Your task to perform on an android device: Show me productivity apps on the Play Store Image 0: 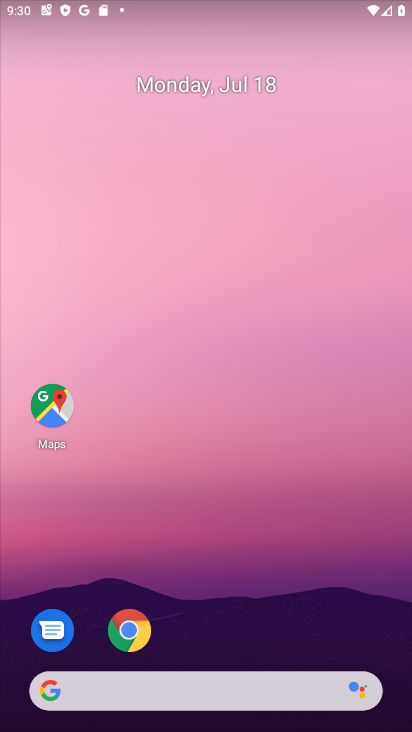
Step 0: drag from (370, 643) to (204, 18)
Your task to perform on an android device: Show me productivity apps on the Play Store Image 1: 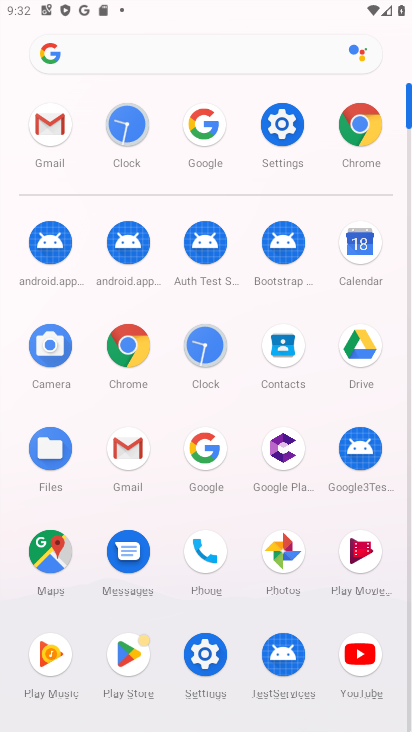
Step 1: click (118, 657)
Your task to perform on an android device: Show me productivity apps on the Play Store Image 2: 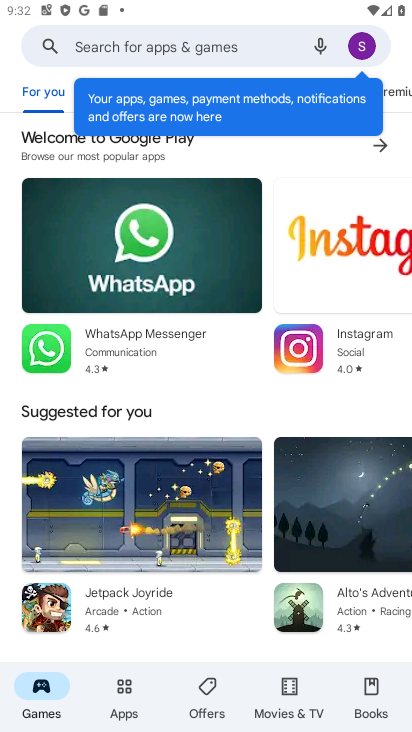
Step 2: task complete